Your task to perform on an android device: Show me the alarms in the clock app Image 0: 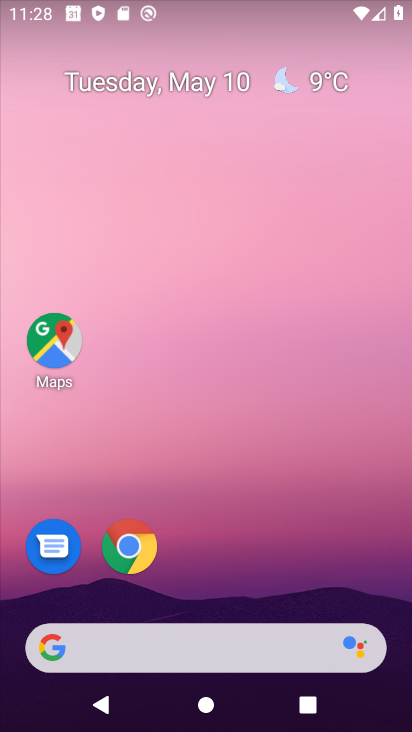
Step 0: drag from (264, 517) to (262, 159)
Your task to perform on an android device: Show me the alarms in the clock app Image 1: 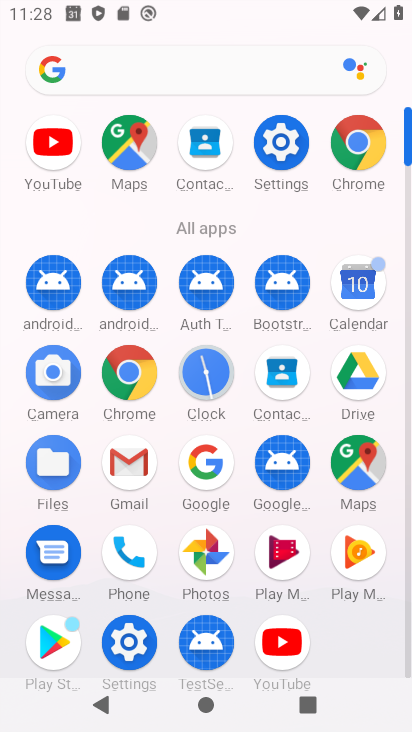
Step 1: click (196, 387)
Your task to perform on an android device: Show me the alarms in the clock app Image 2: 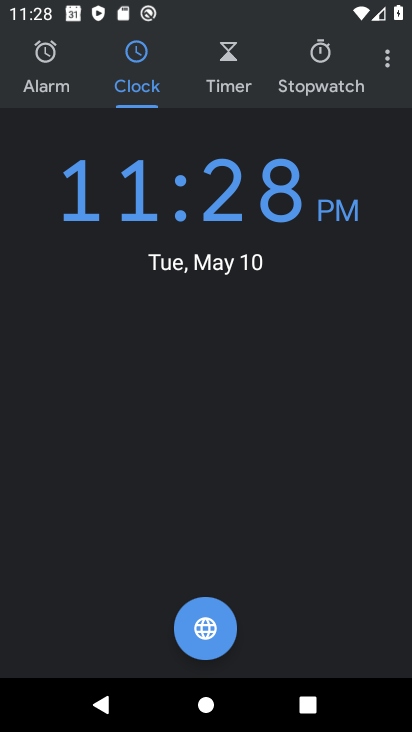
Step 2: click (57, 66)
Your task to perform on an android device: Show me the alarms in the clock app Image 3: 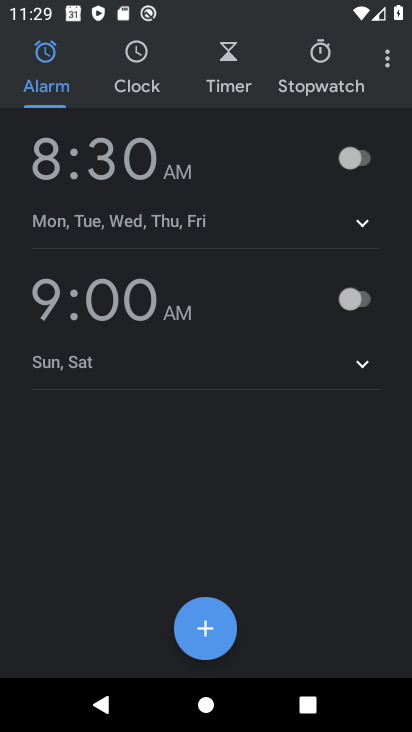
Step 3: task complete